Your task to perform on an android device: Go to Google maps Image 0: 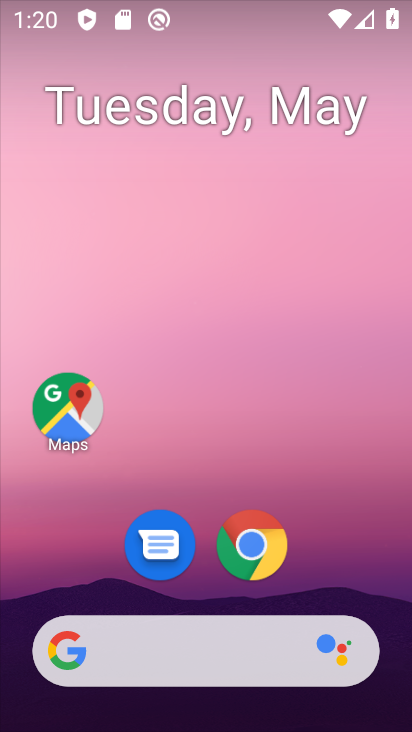
Step 0: click (67, 403)
Your task to perform on an android device: Go to Google maps Image 1: 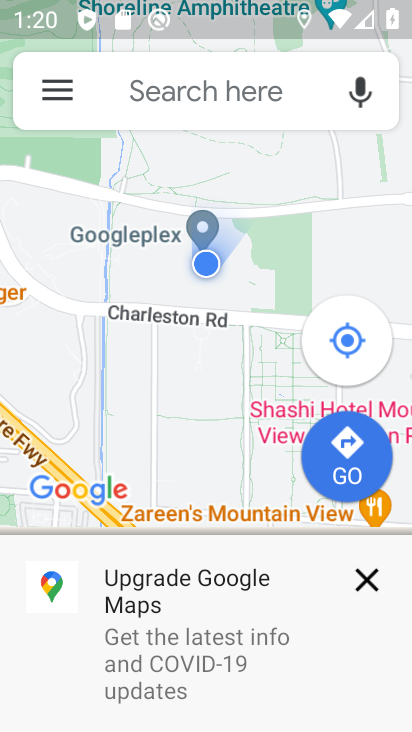
Step 1: click (362, 570)
Your task to perform on an android device: Go to Google maps Image 2: 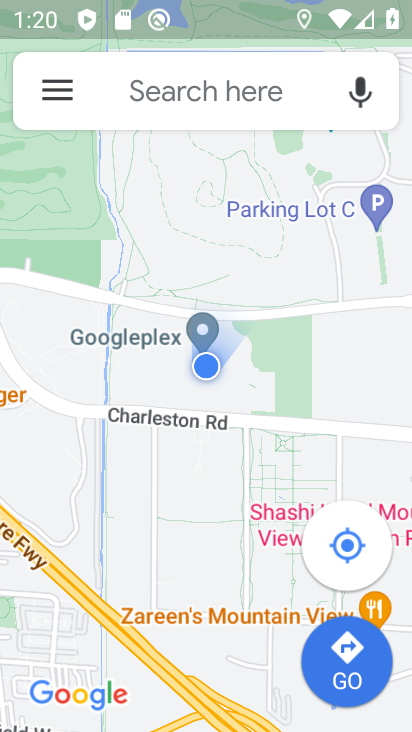
Step 2: task complete